Your task to perform on an android device: Turn on the flashlight Image 0: 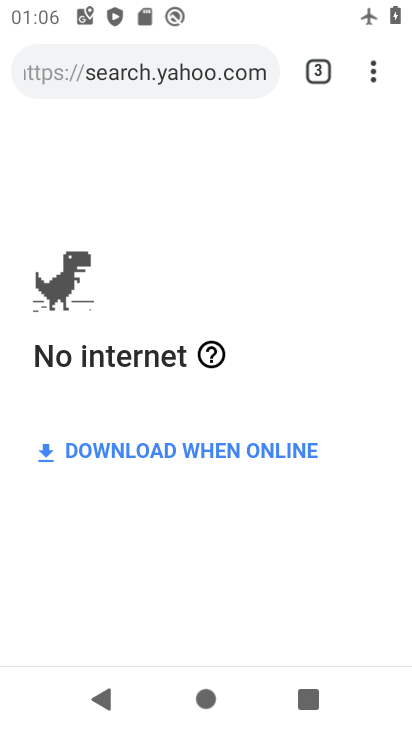
Step 0: press home button
Your task to perform on an android device: Turn on the flashlight Image 1: 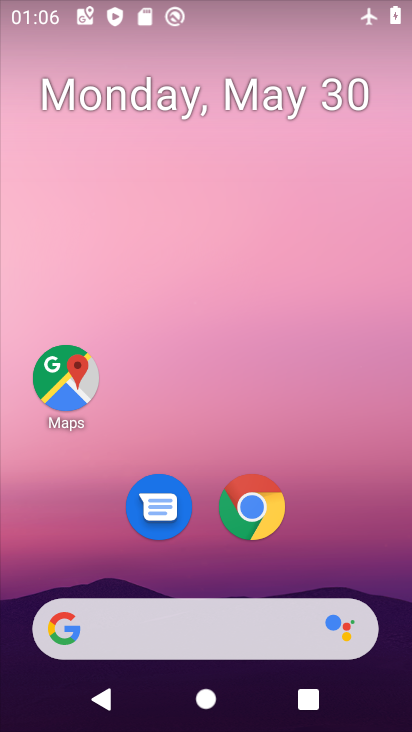
Step 1: drag from (330, 582) to (262, 250)
Your task to perform on an android device: Turn on the flashlight Image 2: 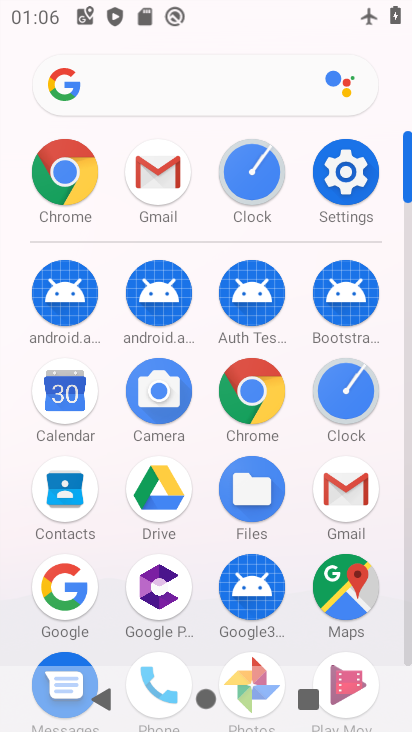
Step 2: click (327, 170)
Your task to perform on an android device: Turn on the flashlight Image 3: 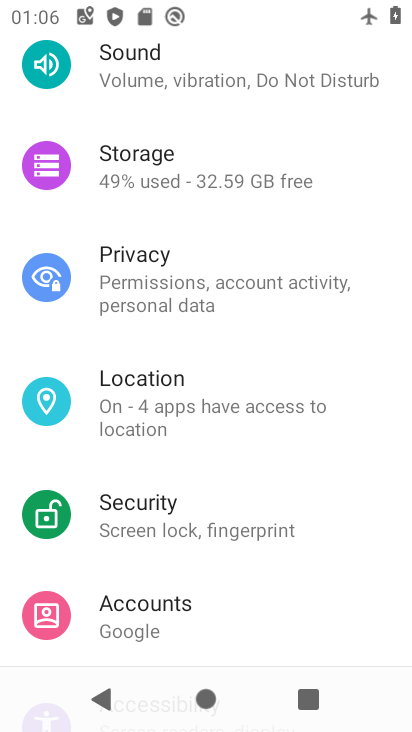
Step 3: task complete